Your task to perform on an android device: Search for asus rog on target, select the first entry, add it to the cart, then select checkout. Image 0: 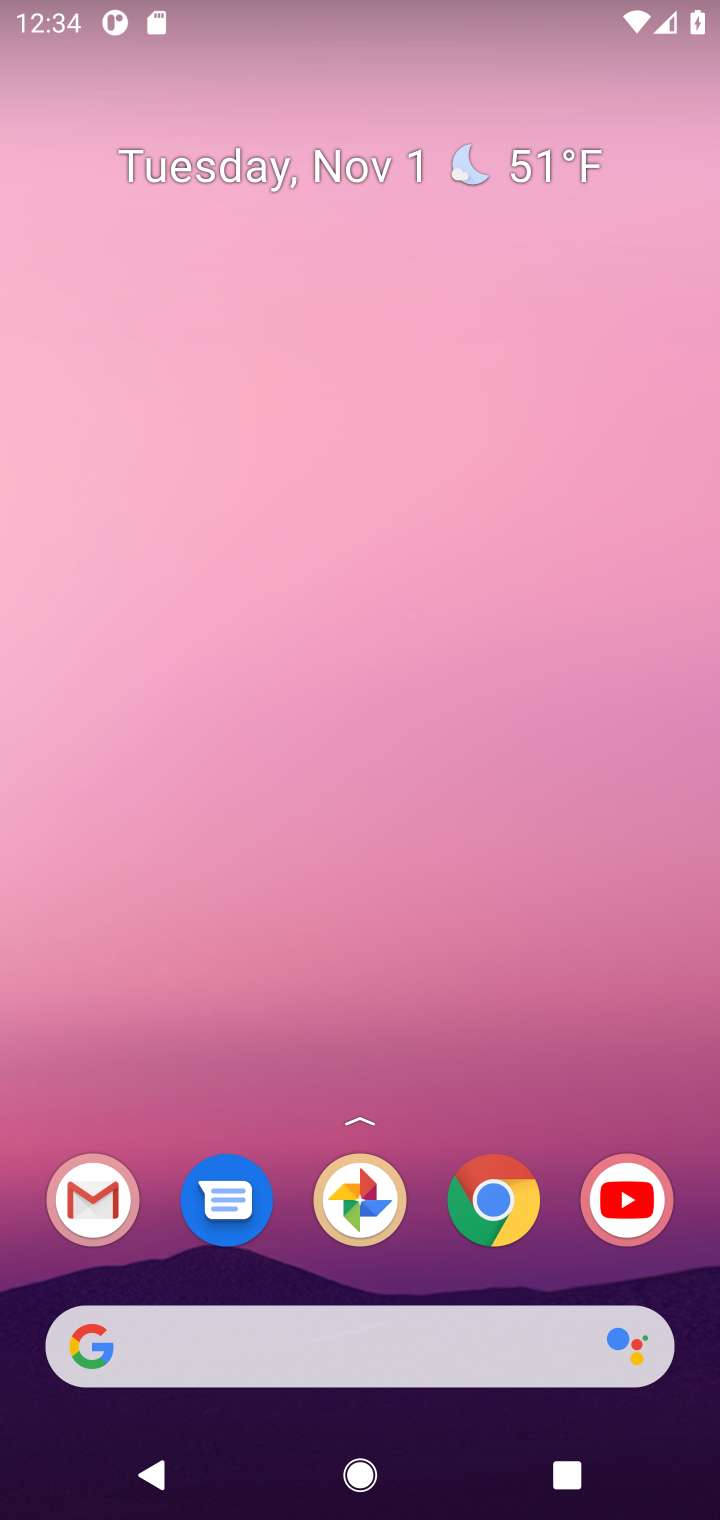
Step 0: click (488, 1199)
Your task to perform on an android device: Search for asus rog on target, select the first entry, add it to the cart, then select checkout. Image 1: 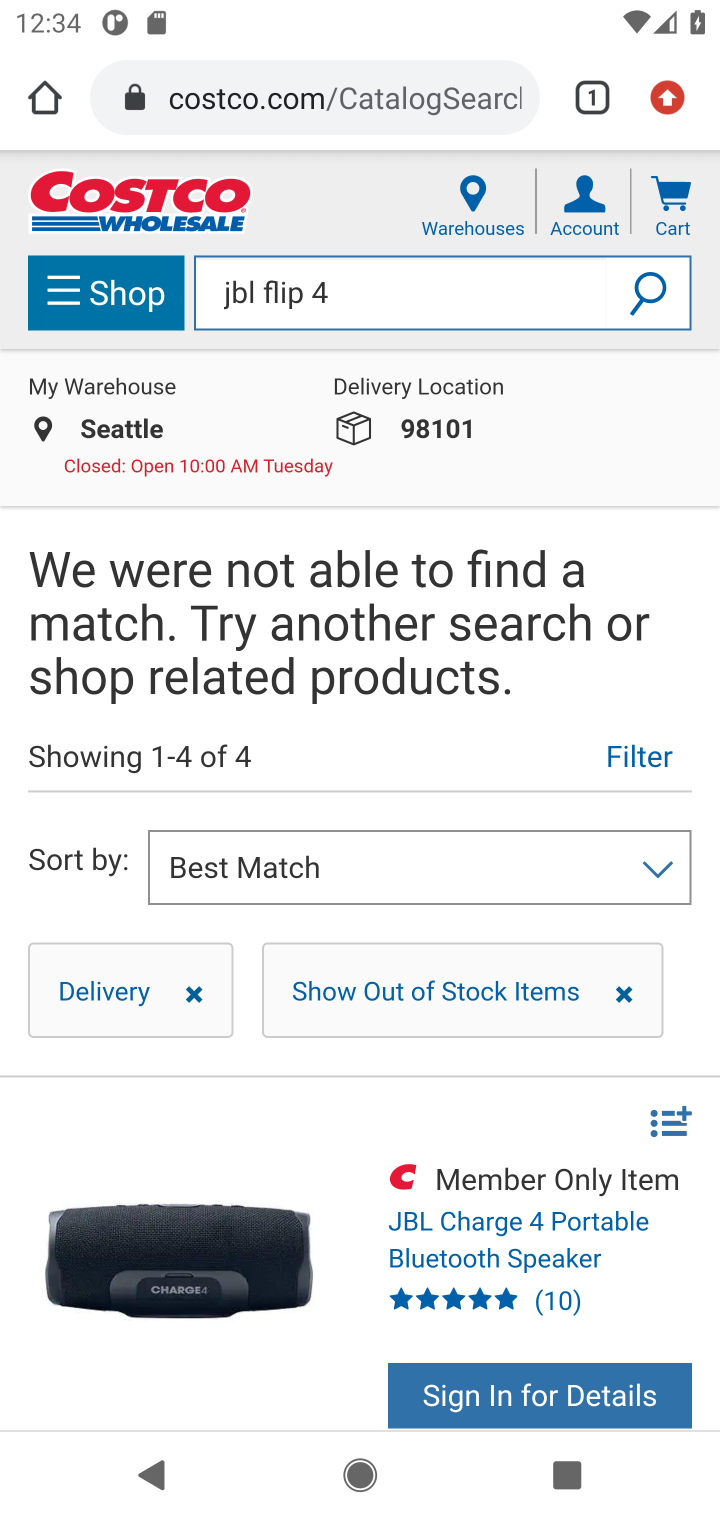
Step 1: click (337, 92)
Your task to perform on an android device: Search for asus rog on target, select the first entry, add it to the cart, then select checkout. Image 2: 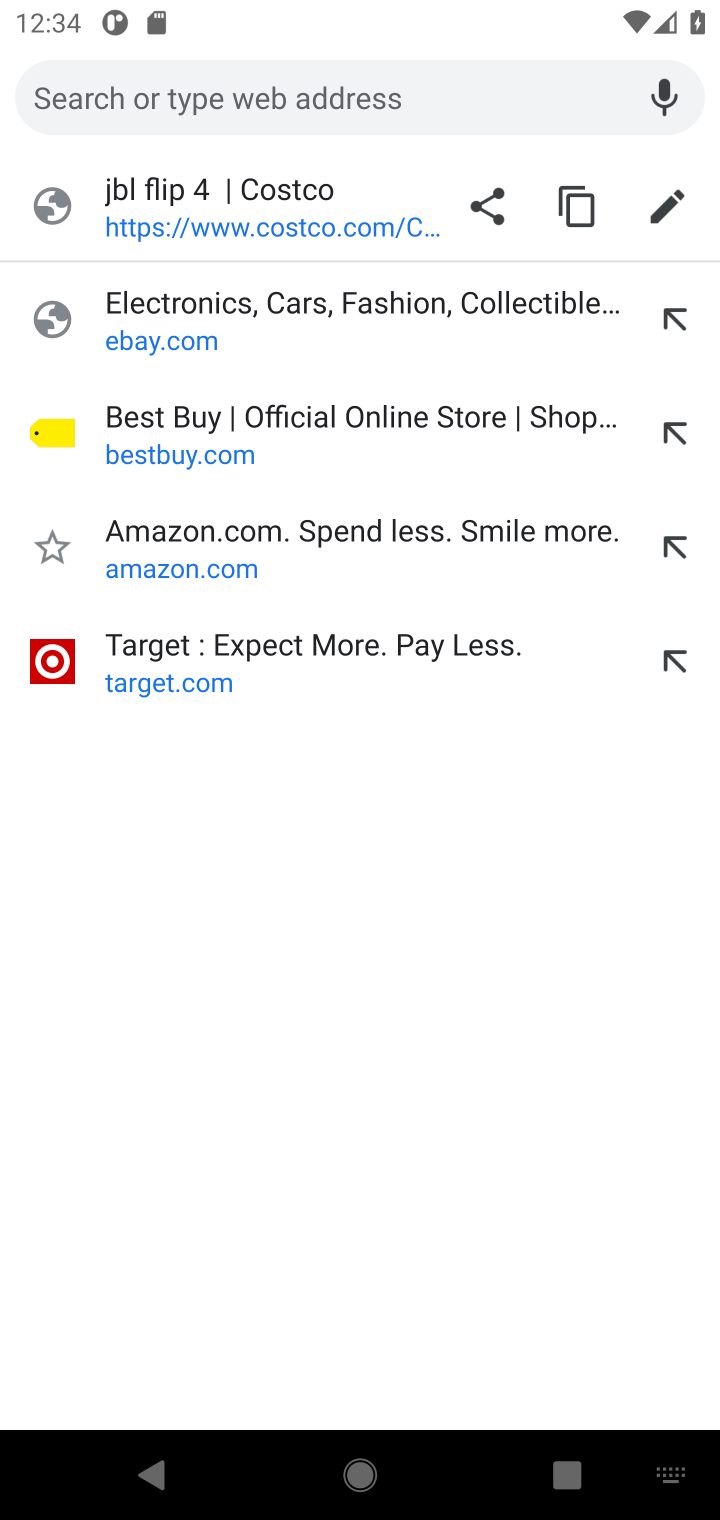
Step 2: click (196, 654)
Your task to perform on an android device: Search for asus rog on target, select the first entry, add it to the cart, then select checkout. Image 3: 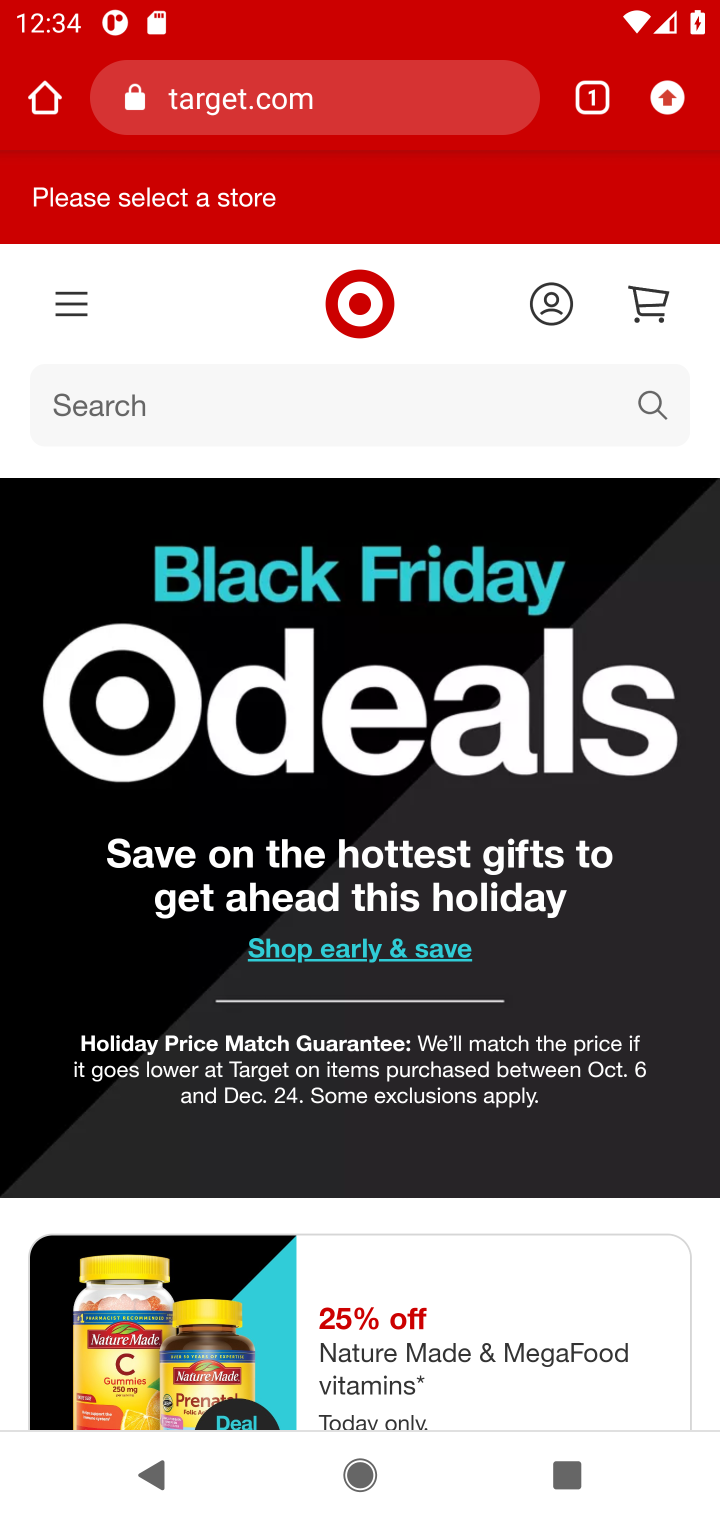
Step 3: click (646, 404)
Your task to perform on an android device: Search for asus rog on target, select the first entry, add it to the cart, then select checkout. Image 4: 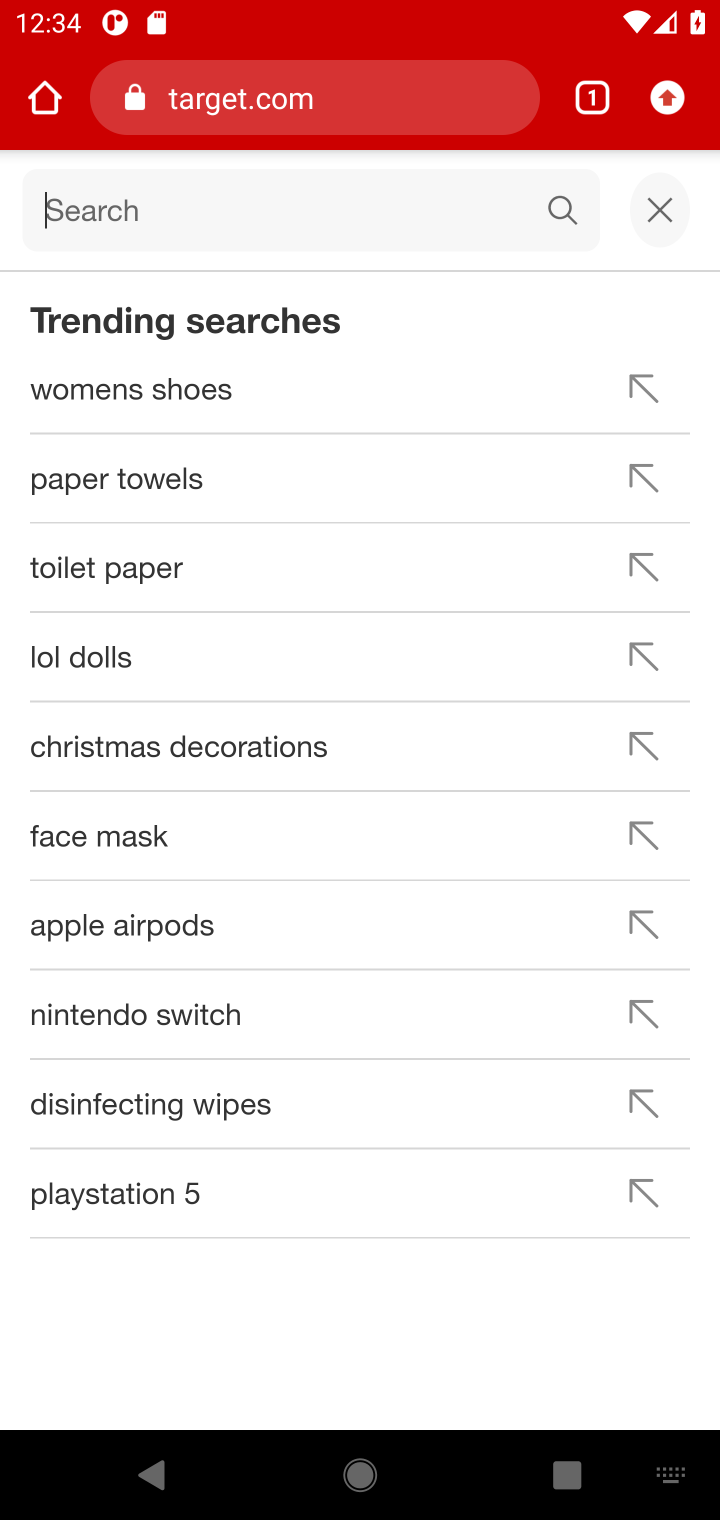
Step 4: type "asus rog "
Your task to perform on an android device: Search for asus rog on target, select the first entry, add it to the cart, then select checkout. Image 5: 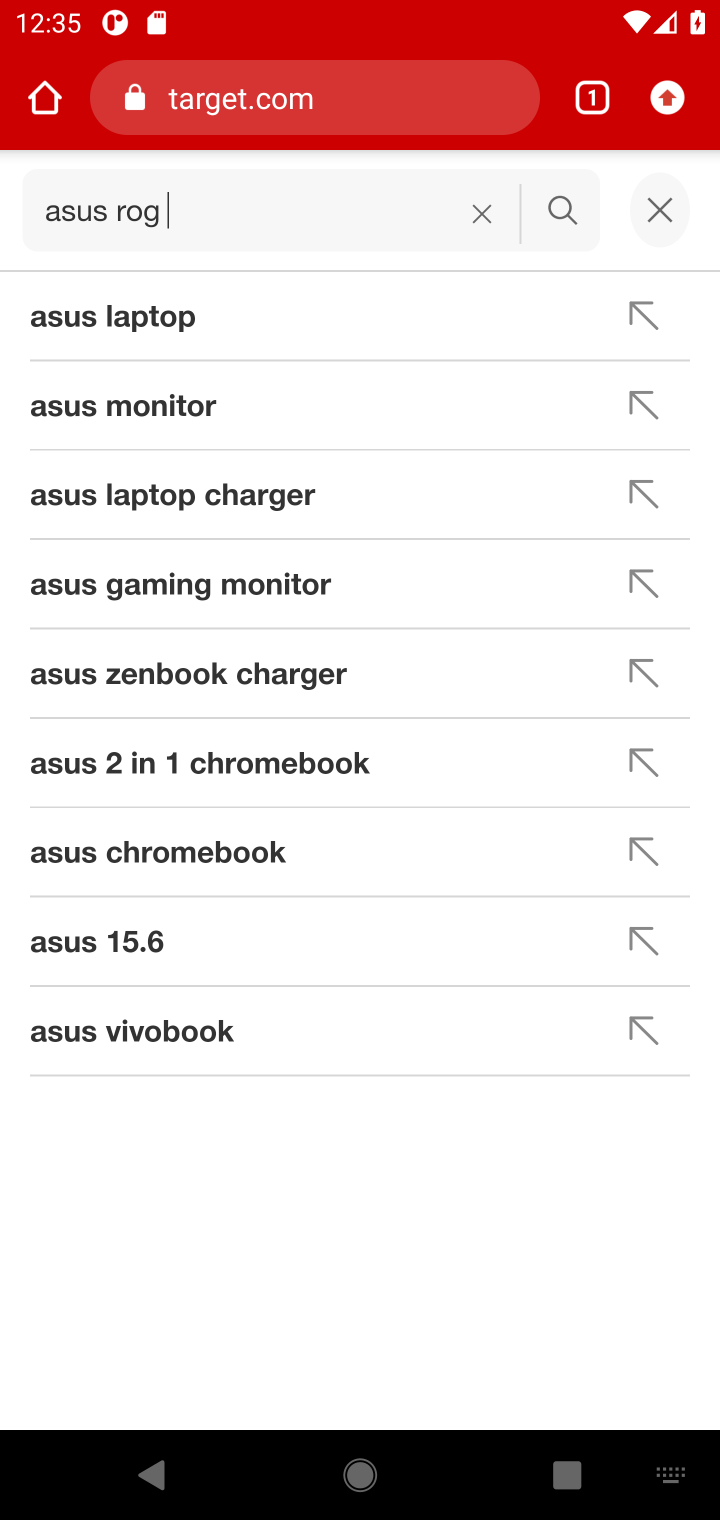
Step 5: click (564, 200)
Your task to perform on an android device: Search for asus rog on target, select the first entry, add it to the cart, then select checkout. Image 6: 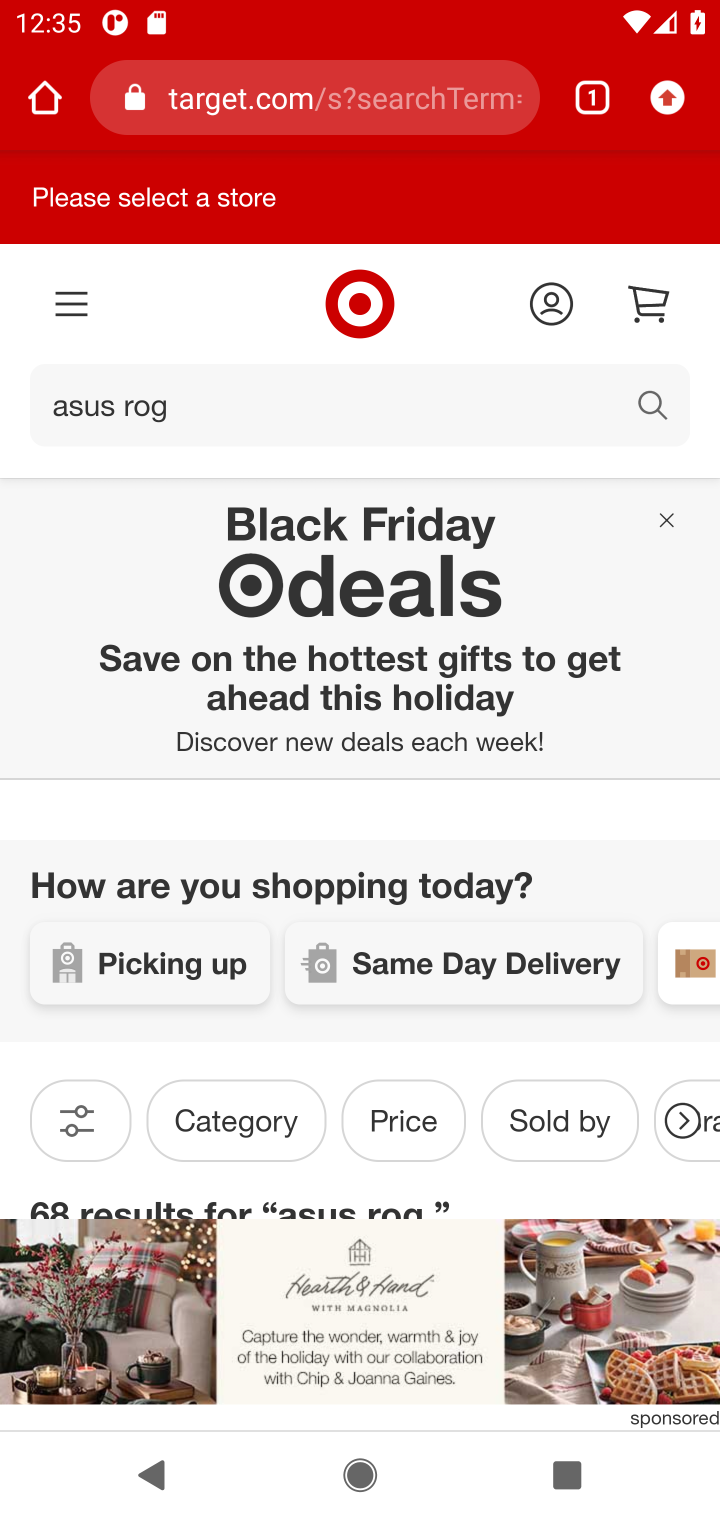
Step 6: drag from (266, 1089) to (282, 325)
Your task to perform on an android device: Search for asus rog on target, select the first entry, add it to the cart, then select checkout. Image 7: 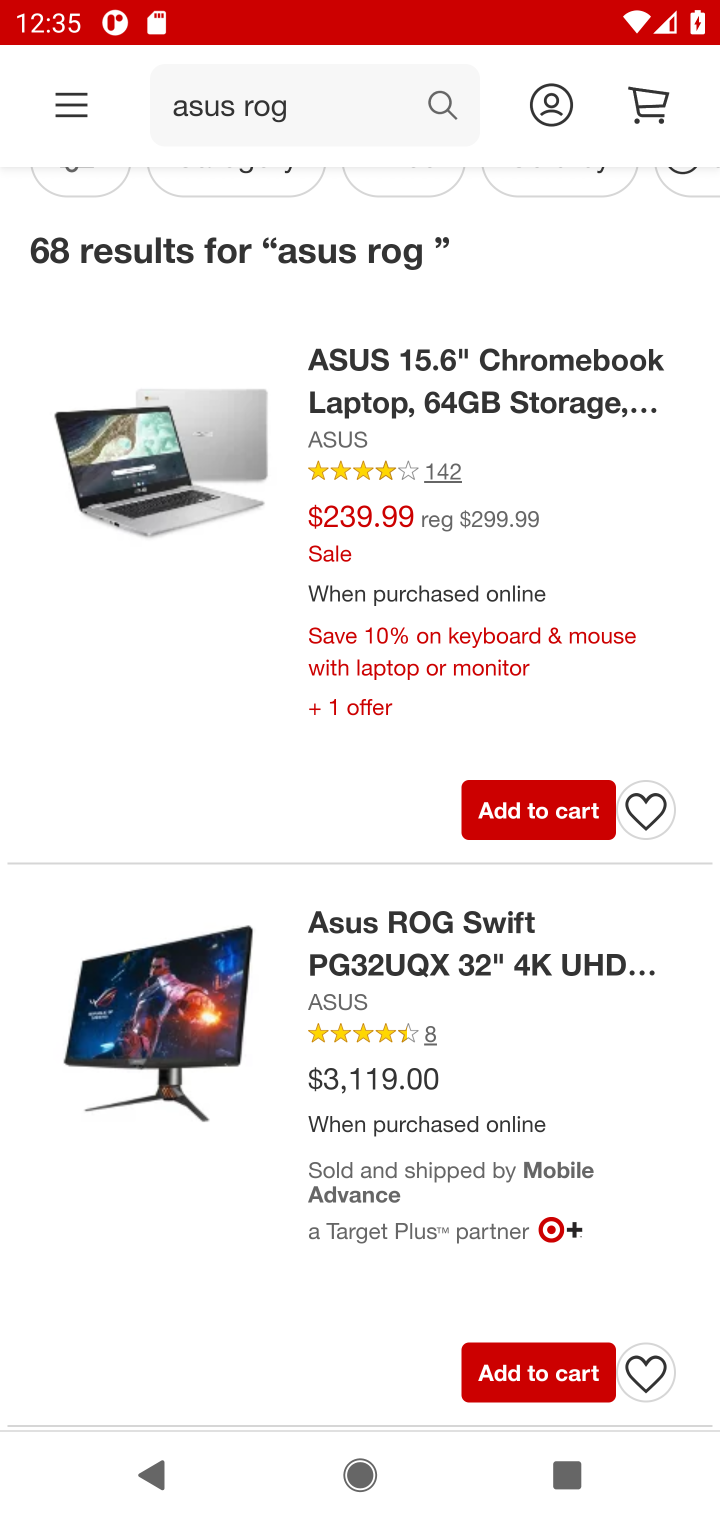
Step 7: click (193, 491)
Your task to perform on an android device: Search for asus rog on target, select the first entry, add it to the cart, then select checkout. Image 8: 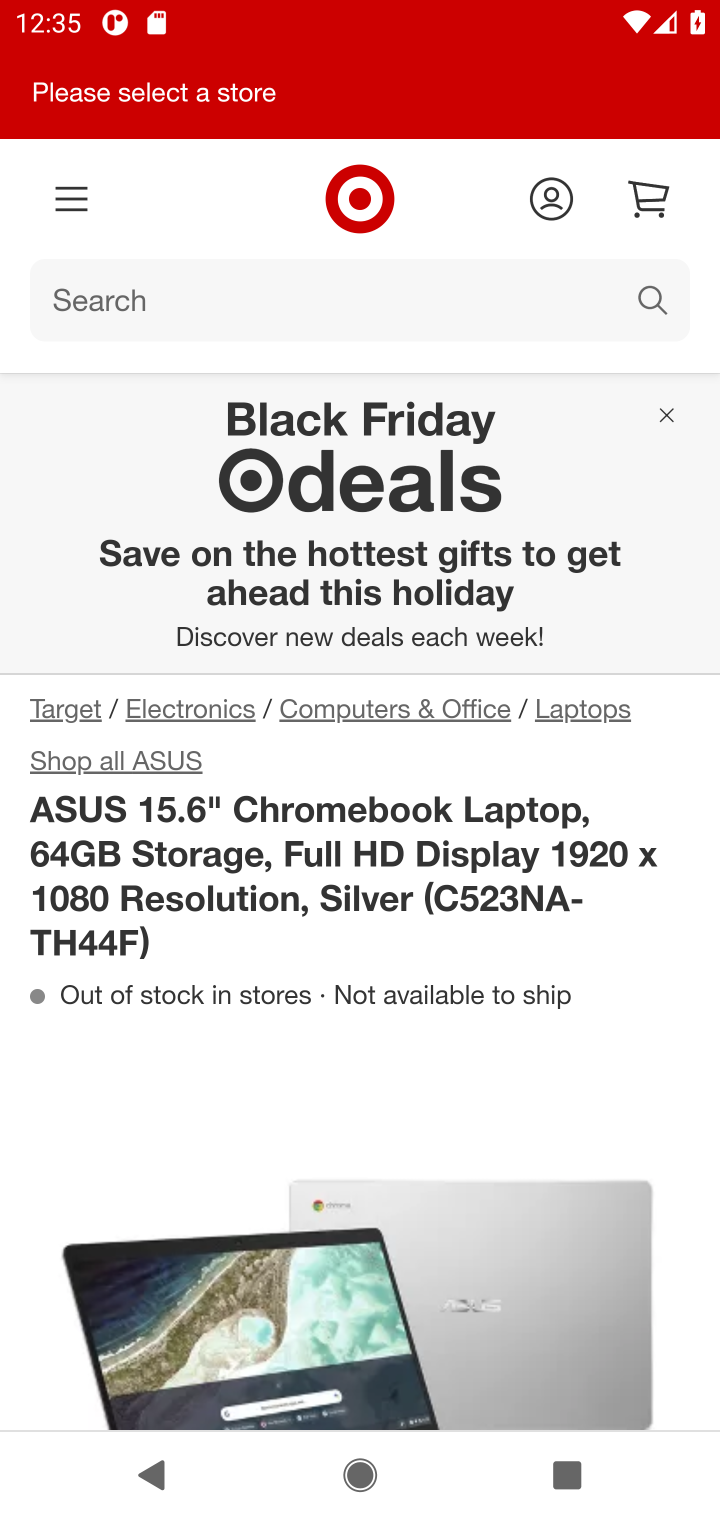
Step 8: task complete